Your task to perform on an android device: check google app version Image 0: 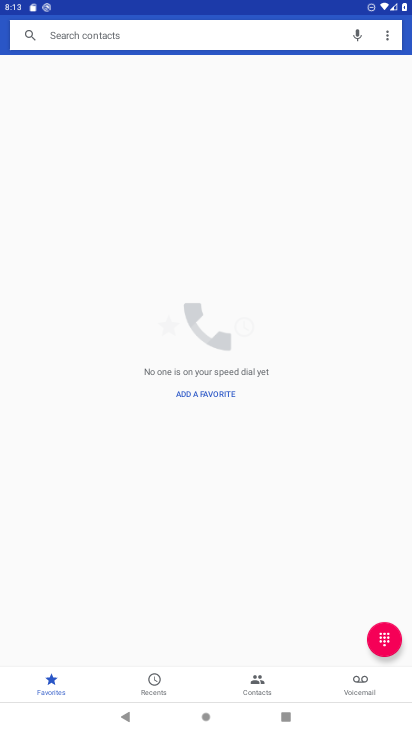
Step 0: press home button
Your task to perform on an android device: check google app version Image 1: 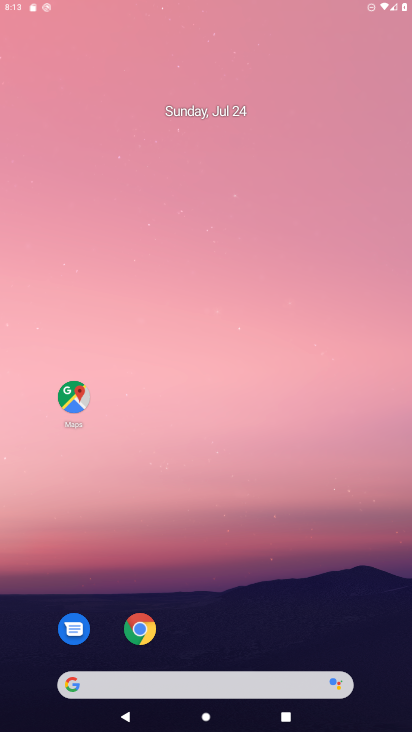
Step 1: drag from (389, 681) to (199, 5)
Your task to perform on an android device: check google app version Image 2: 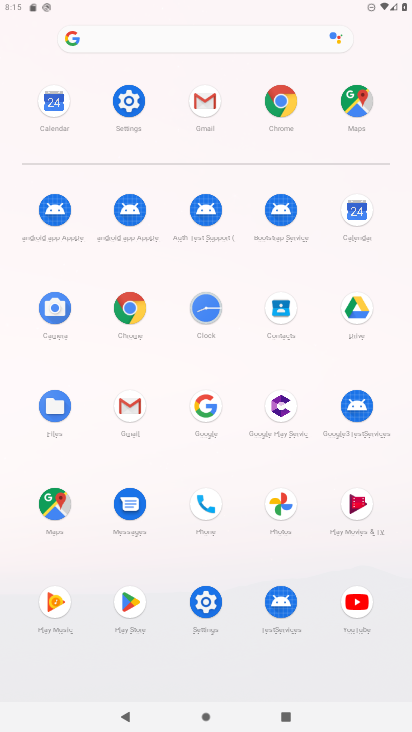
Step 2: click (206, 409)
Your task to perform on an android device: check google app version Image 3: 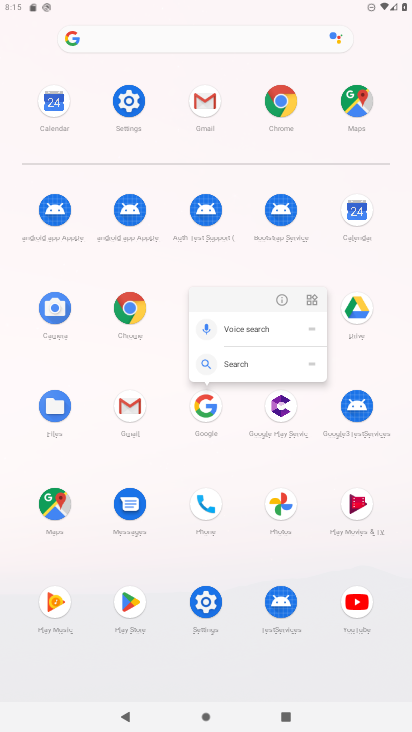
Step 3: click (274, 298)
Your task to perform on an android device: check google app version Image 4: 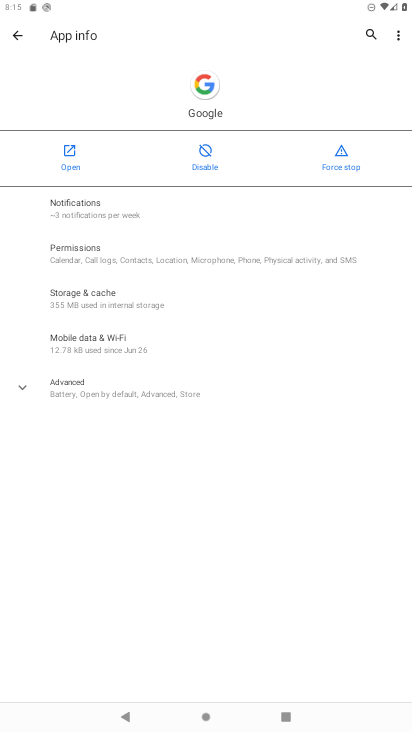
Step 4: click (106, 396)
Your task to perform on an android device: check google app version Image 5: 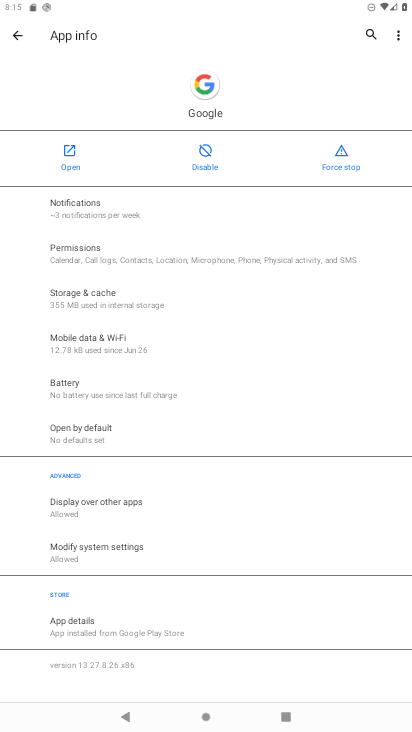
Step 5: task complete